Your task to perform on an android device: Go to privacy settings Image 0: 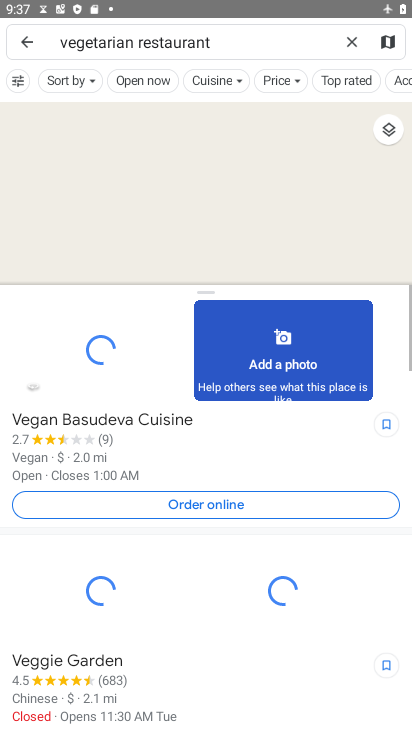
Step 0: press home button
Your task to perform on an android device: Go to privacy settings Image 1: 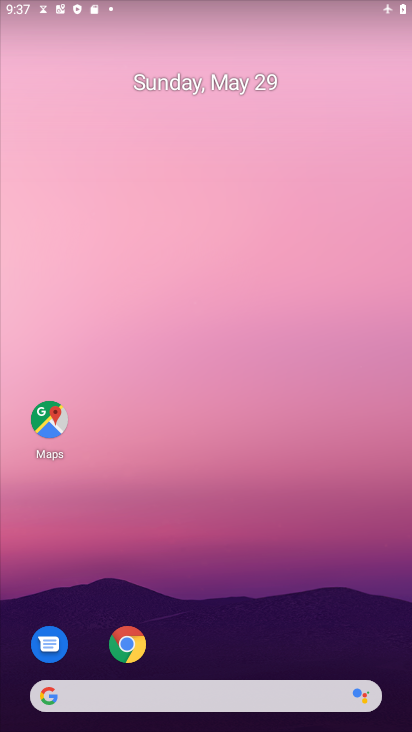
Step 1: drag from (249, 609) to (196, 251)
Your task to perform on an android device: Go to privacy settings Image 2: 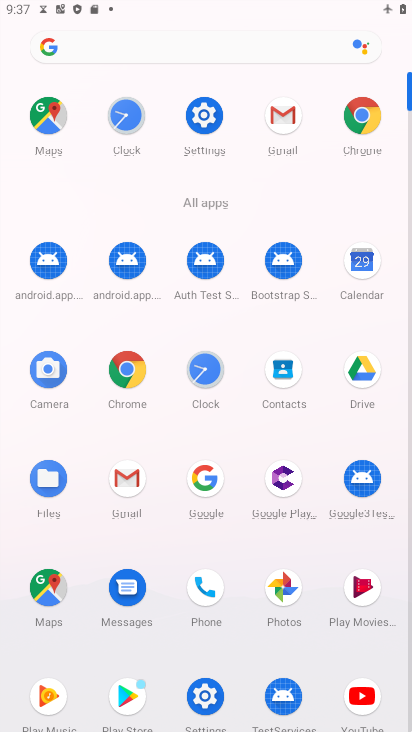
Step 2: click (210, 116)
Your task to perform on an android device: Go to privacy settings Image 3: 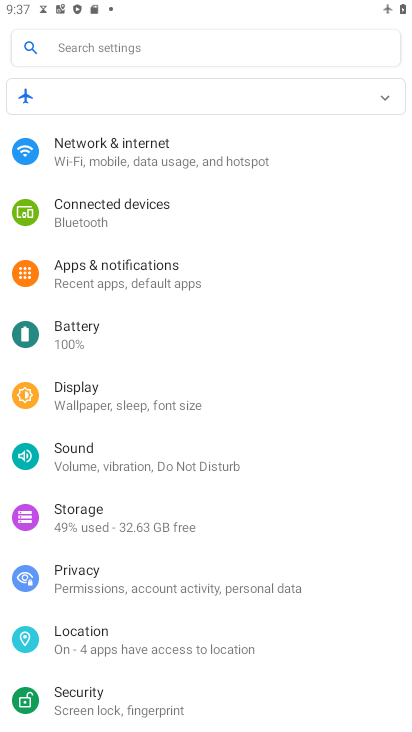
Step 3: click (151, 576)
Your task to perform on an android device: Go to privacy settings Image 4: 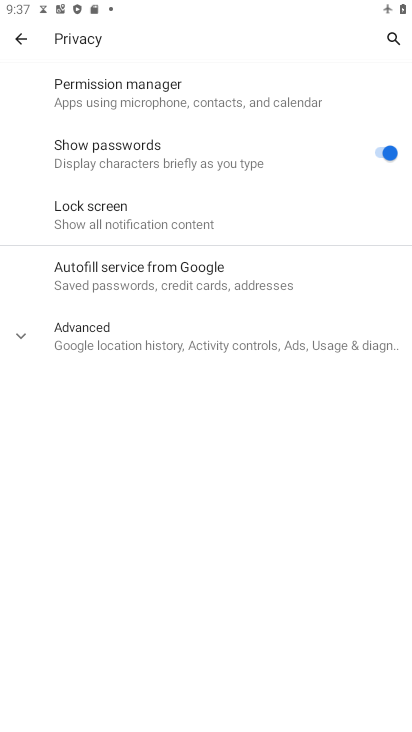
Step 4: task complete